Your task to perform on an android device: Open privacy settings Image 0: 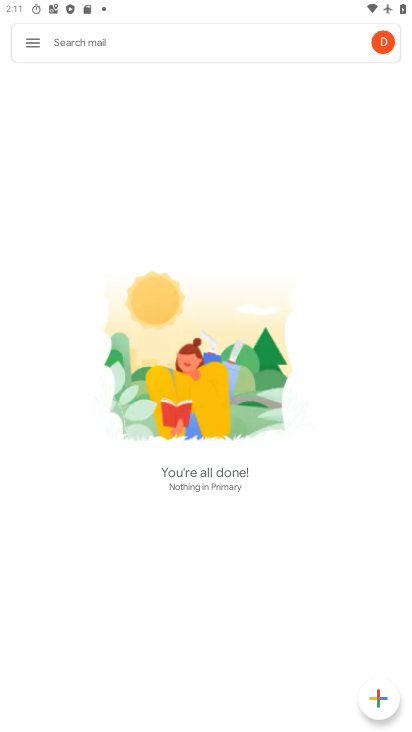
Step 0: press home button
Your task to perform on an android device: Open privacy settings Image 1: 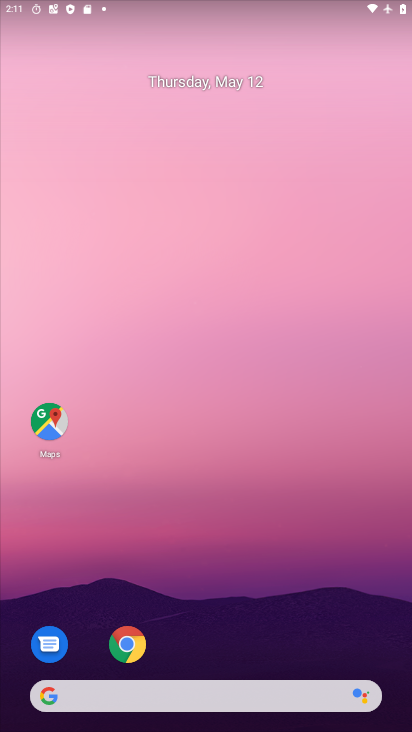
Step 1: drag from (248, 629) to (191, 15)
Your task to perform on an android device: Open privacy settings Image 2: 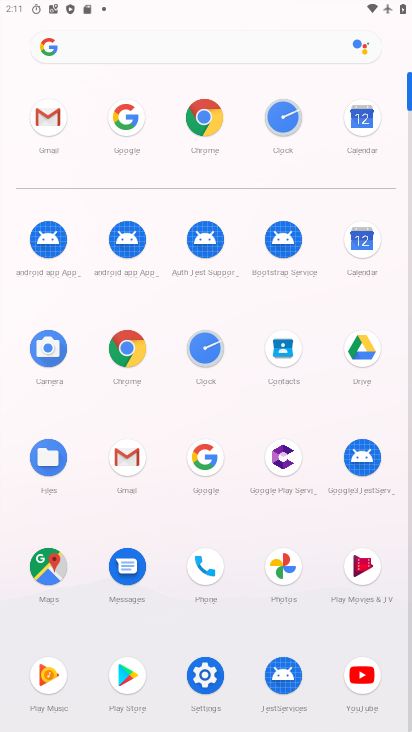
Step 2: click (212, 670)
Your task to perform on an android device: Open privacy settings Image 3: 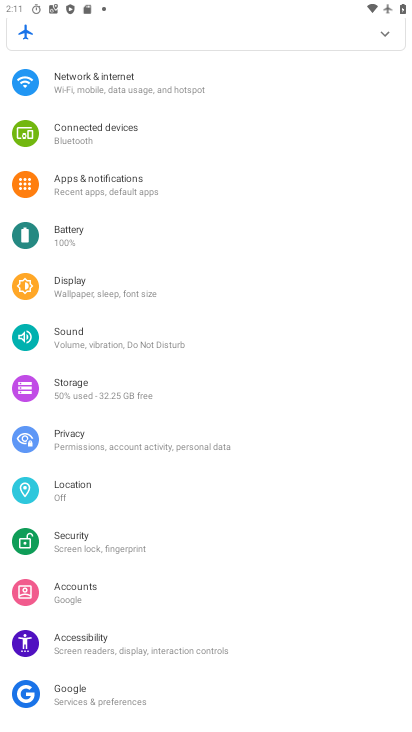
Step 3: click (107, 417)
Your task to perform on an android device: Open privacy settings Image 4: 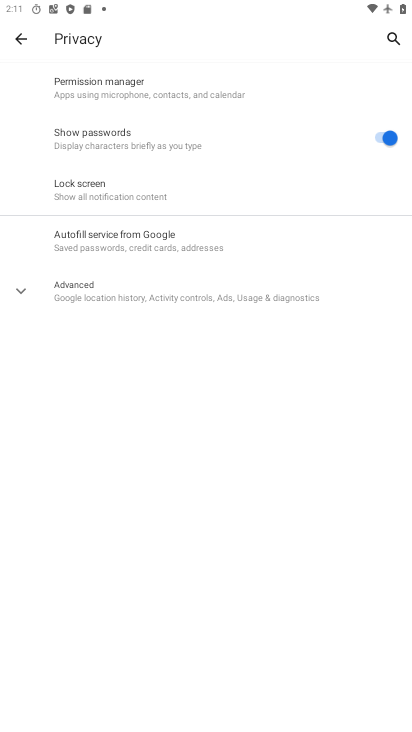
Step 4: task complete